Your task to perform on an android device: What's on my calendar tomorrow? Image 0: 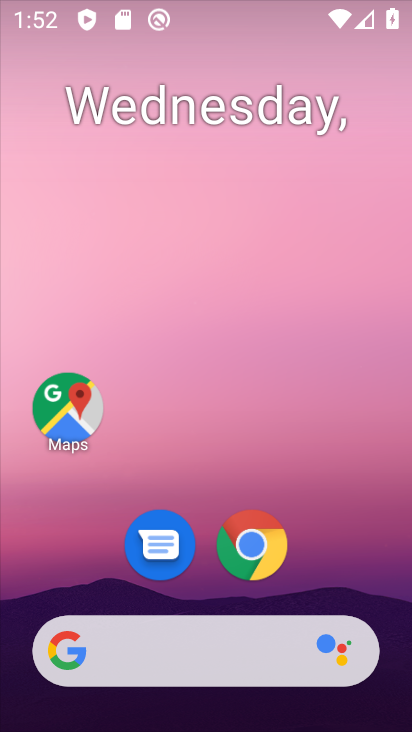
Step 0: press home button
Your task to perform on an android device: What's on my calendar tomorrow? Image 1: 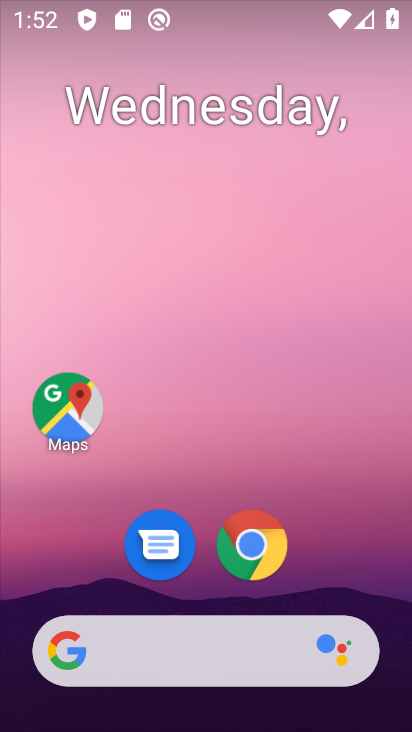
Step 1: drag from (321, 351) to (267, 60)
Your task to perform on an android device: What's on my calendar tomorrow? Image 2: 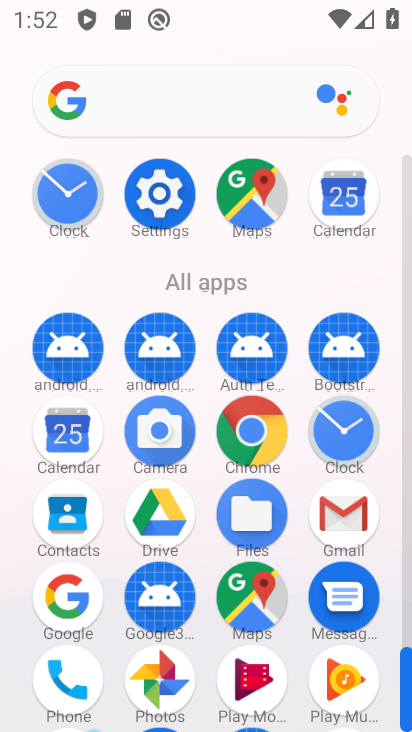
Step 2: click (81, 435)
Your task to perform on an android device: What's on my calendar tomorrow? Image 3: 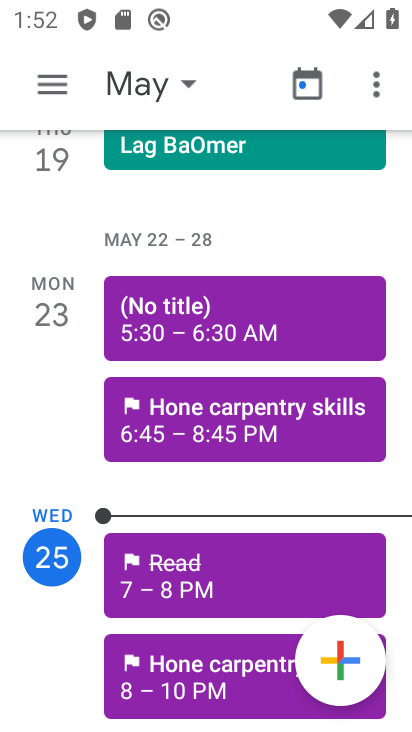
Step 3: task complete